Your task to perform on an android device: Open calendar and show me the second week of next month Image 0: 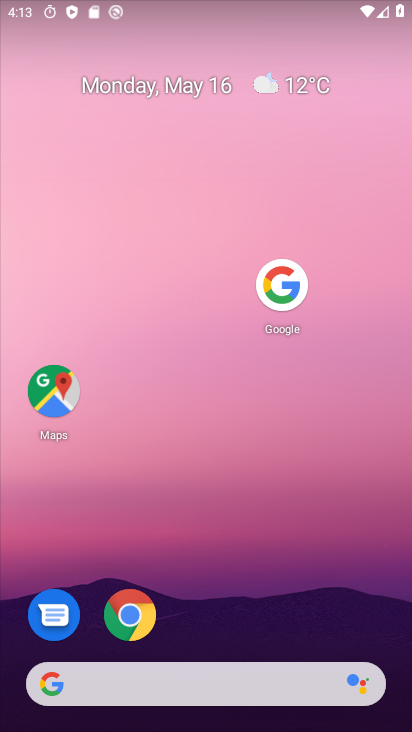
Step 0: drag from (229, 647) to (157, 33)
Your task to perform on an android device: Open calendar and show me the second week of next month Image 1: 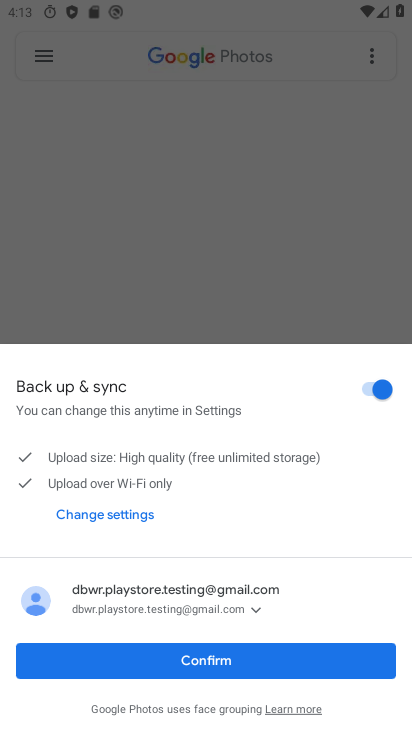
Step 1: press home button
Your task to perform on an android device: Open calendar and show me the second week of next month Image 2: 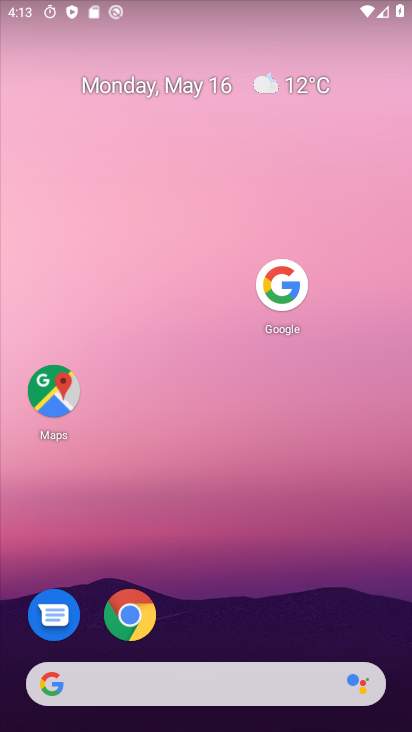
Step 2: drag from (218, 656) to (141, 11)
Your task to perform on an android device: Open calendar and show me the second week of next month Image 3: 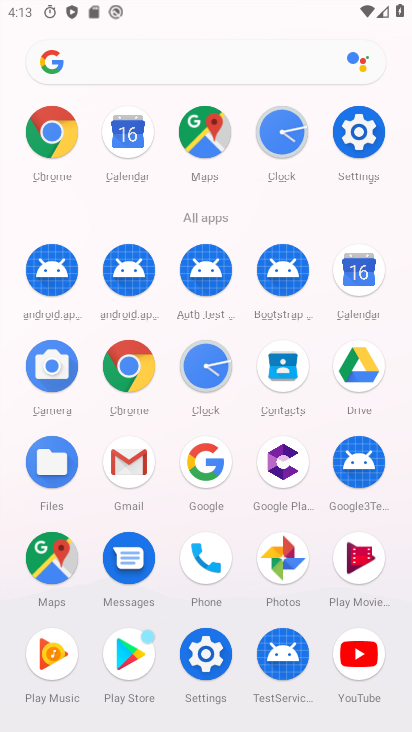
Step 3: click (358, 279)
Your task to perform on an android device: Open calendar and show me the second week of next month Image 4: 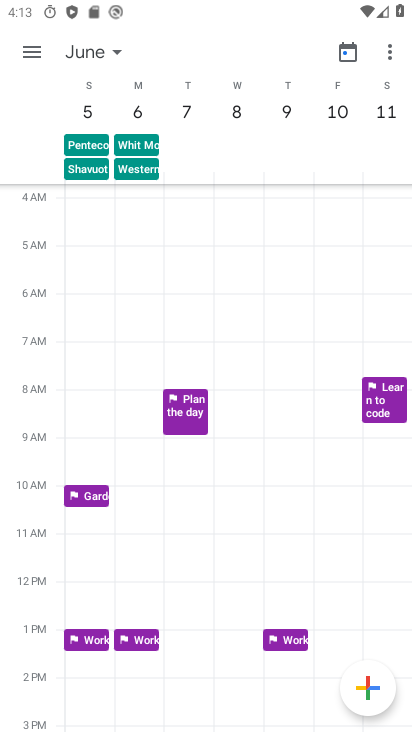
Step 4: task complete